Your task to perform on an android device: Go to location settings Image 0: 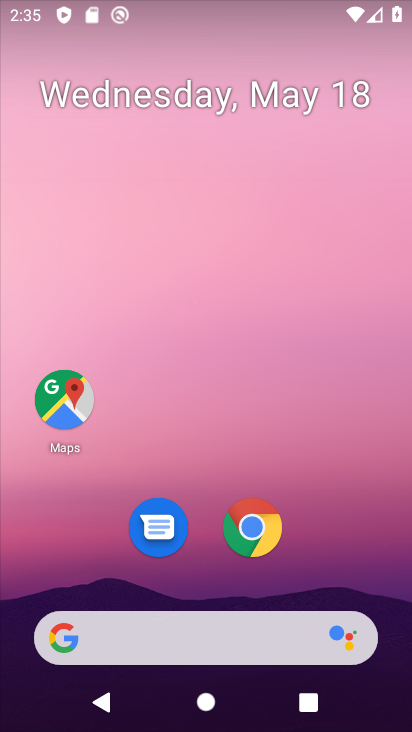
Step 0: drag from (225, 581) to (18, 336)
Your task to perform on an android device: Go to location settings Image 1: 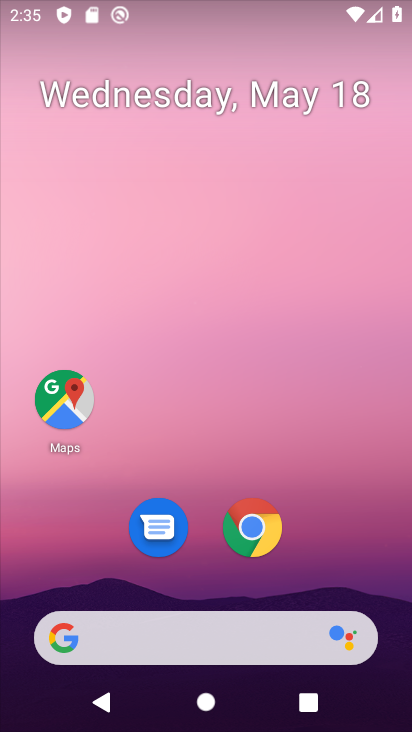
Step 1: drag from (230, 615) to (153, 11)
Your task to perform on an android device: Go to location settings Image 2: 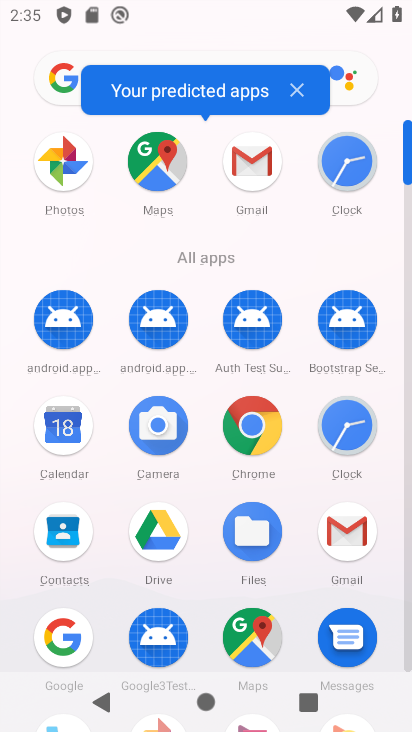
Step 2: drag from (203, 550) to (154, 3)
Your task to perform on an android device: Go to location settings Image 3: 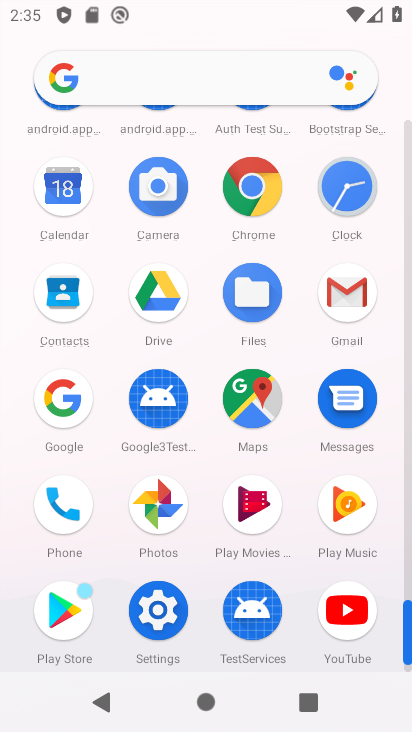
Step 3: click (170, 614)
Your task to perform on an android device: Go to location settings Image 4: 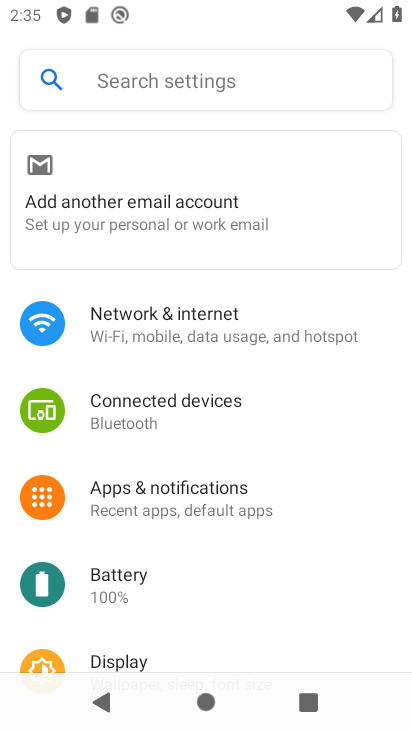
Step 4: drag from (72, 588) to (94, 130)
Your task to perform on an android device: Go to location settings Image 5: 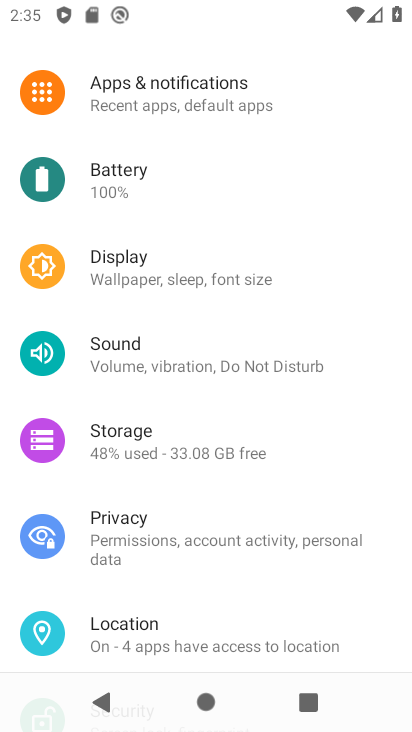
Step 5: click (178, 637)
Your task to perform on an android device: Go to location settings Image 6: 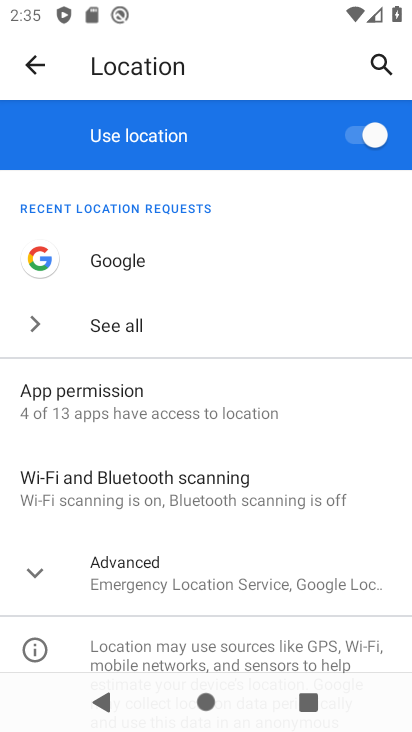
Step 6: task complete